Your task to perform on an android device: turn off notifications in google photos Image 0: 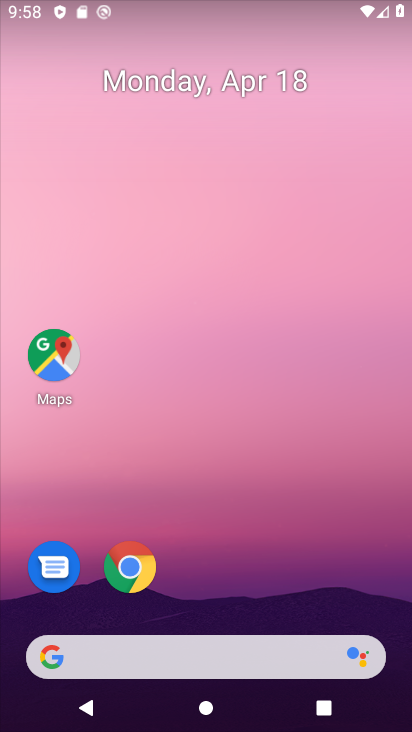
Step 0: drag from (232, 589) to (270, 111)
Your task to perform on an android device: turn off notifications in google photos Image 1: 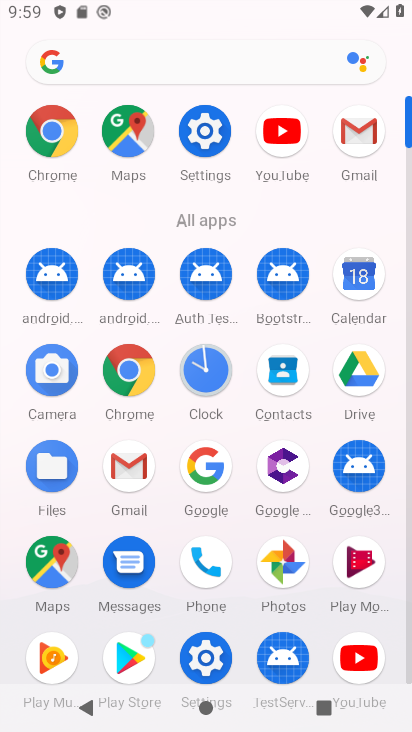
Step 1: click (292, 576)
Your task to perform on an android device: turn off notifications in google photos Image 2: 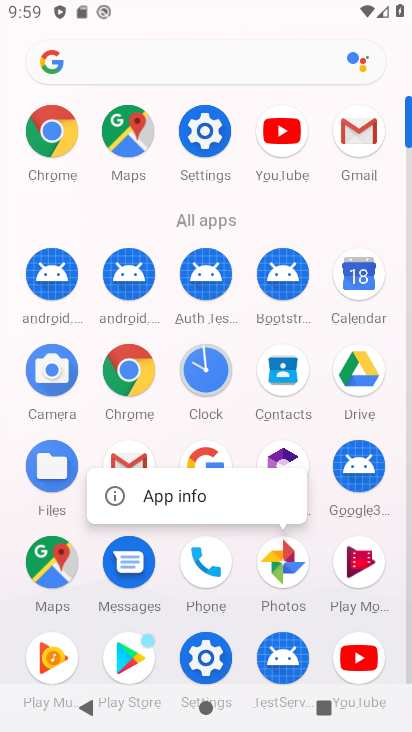
Step 2: click (287, 574)
Your task to perform on an android device: turn off notifications in google photos Image 3: 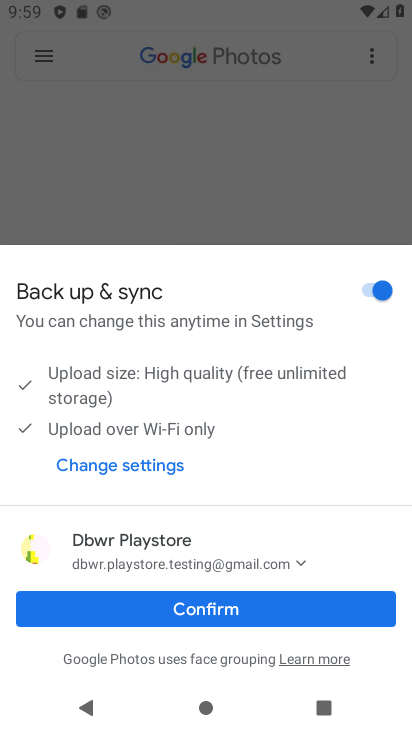
Step 3: click (227, 602)
Your task to perform on an android device: turn off notifications in google photos Image 4: 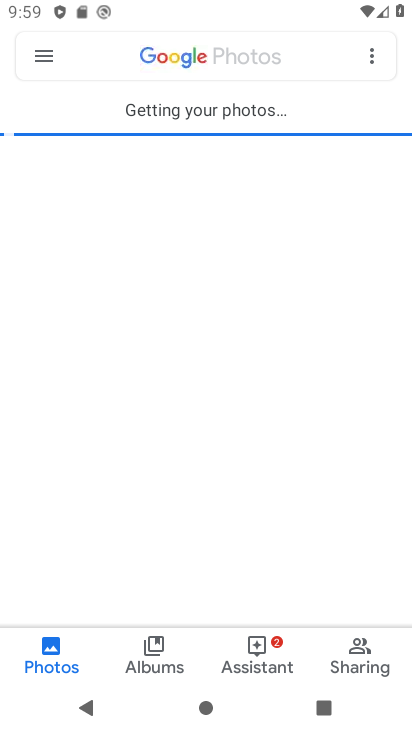
Step 4: click (43, 56)
Your task to perform on an android device: turn off notifications in google photos Image 5: 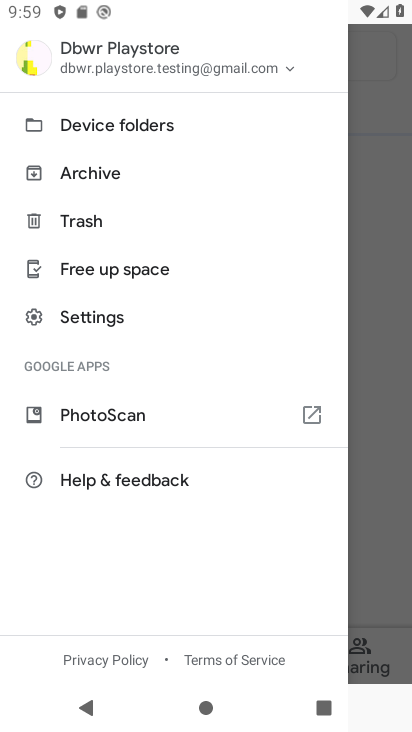
Step 5: click (103, 320)
Your task to perform on an android device: turn off notifications in google photos Image 6: 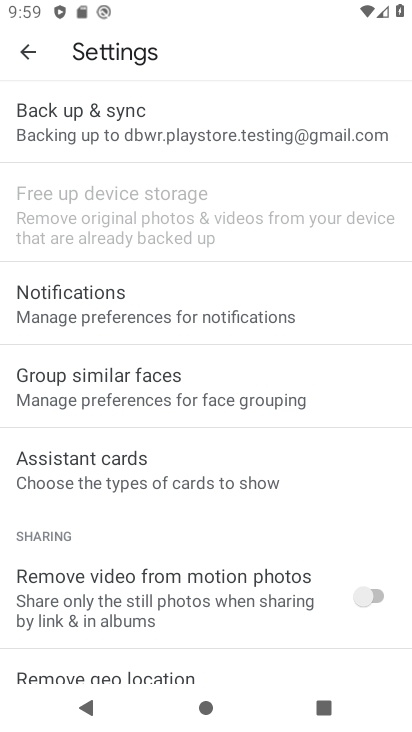
Step 6: click (103, 319)
Your task to perform on an android device: turn off notifications in google photos Image 7: 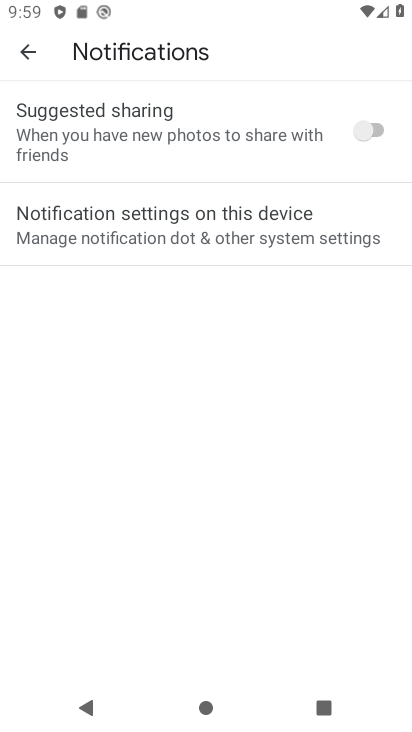
Step 7: click (128, 244)
Your task to perform on an android device: turn off notifications in google photos Image 8: 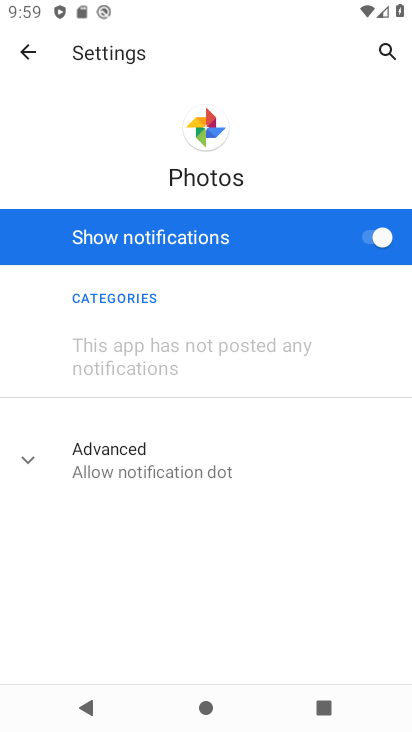
Step 8: click (385, 234)
Your task to perform on an android device: turn off notifications in google photos Image 9: 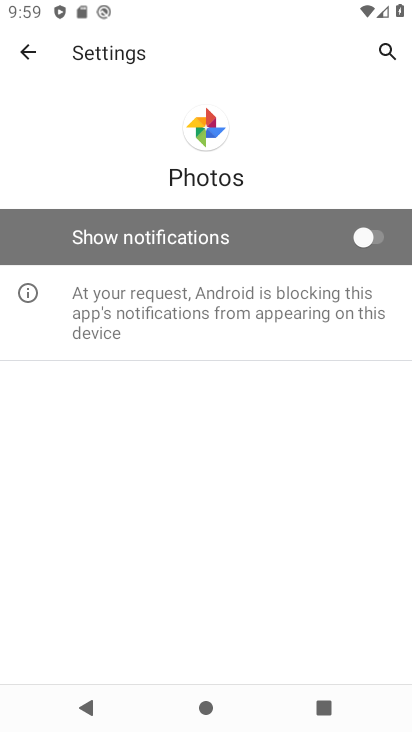
Step 9: task complete